Your task to perform on an android device: What's on my calendar tomorrow? Image 0: 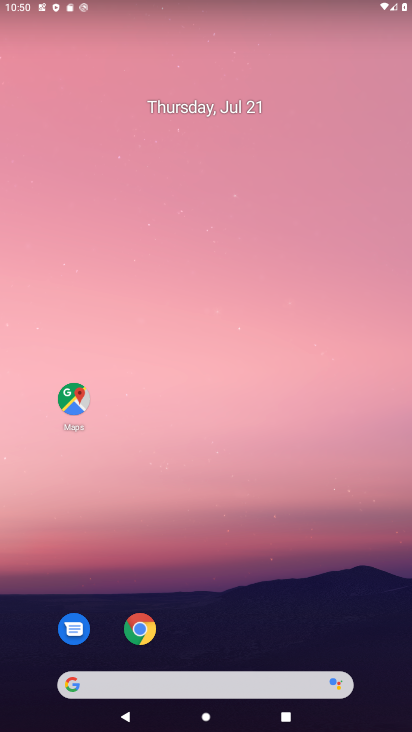
Step 0: drag from (264, 573) to (282, 326)
Your task to perform on an android device: What's on my calendar tomorrow? Image 1: 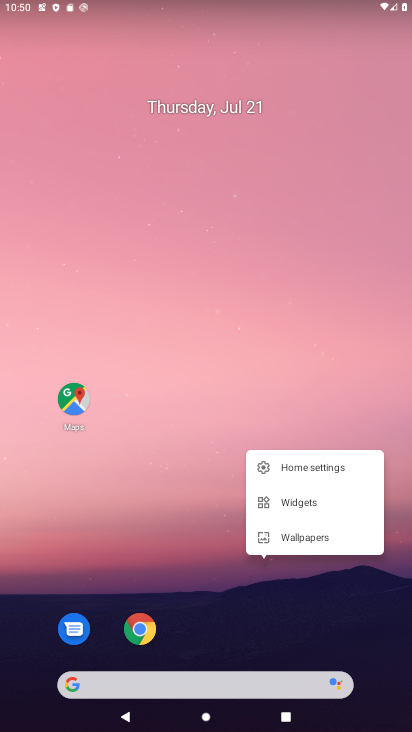
Step 1: click (200, 426)
Your task to perform on an android device: What's on my calendar tomorrow? Image 2: 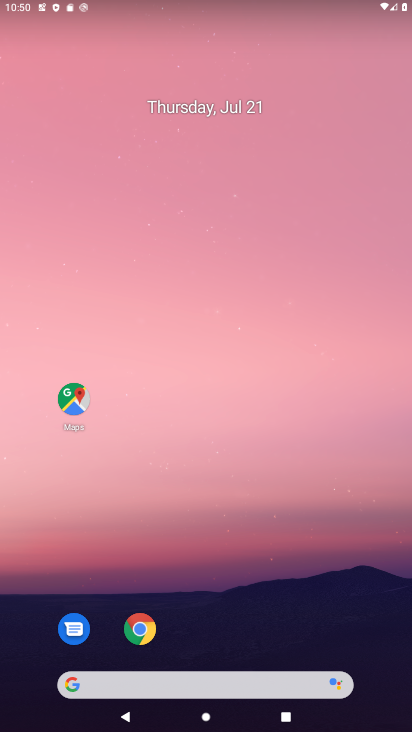
Step 2: drag from (246, 590) to (298, 306)
Your task to perform on an android device: What's on my calendar tomorrow? Image 3: 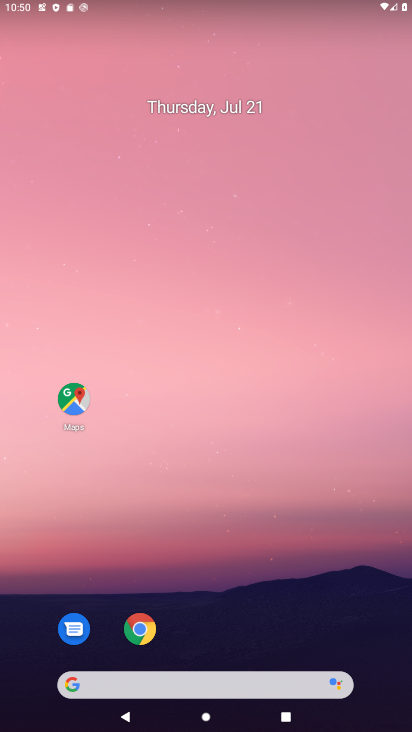
Step 3: drag from (272, 474) to (303, 277)
Your task to perform on an android device: What's on my calendar tomorrow? Image 4: 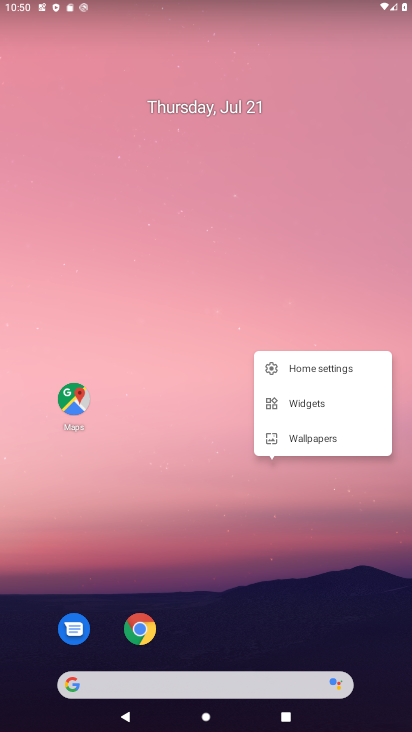
Step 4: click (292, 567)
Your task to perform on an android device: What's on my calendar tomorrow? Image 5: 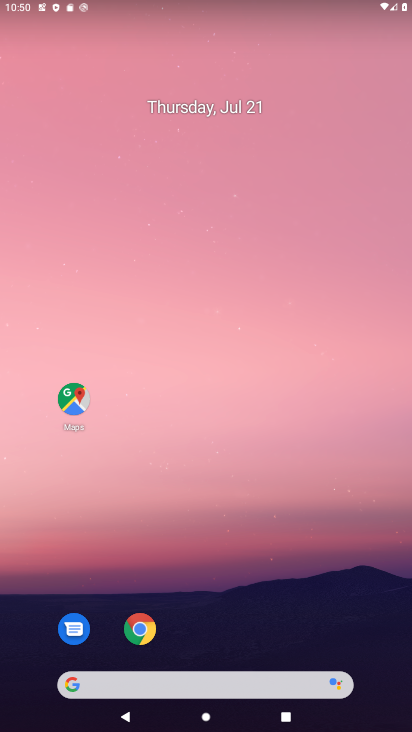
Step 5: drag from (292, 567) to (289, 282)
Your task to perform on an android device: What's on my calendar tomorrow? Image 6: 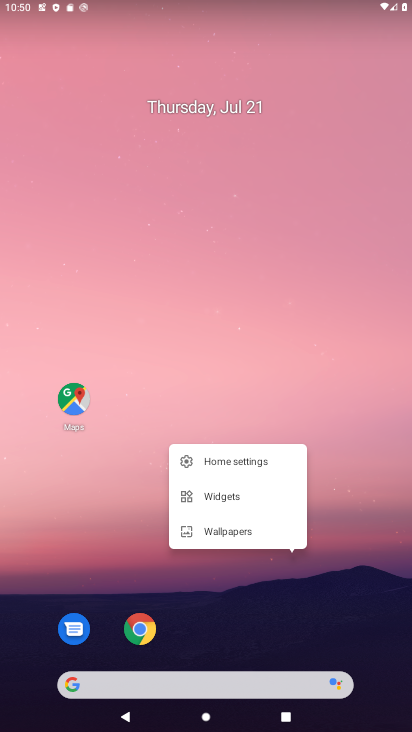
Step 6: click (289, 368)
Your task to perform on an android device: What's on my calendar tomorrow? Image 7: 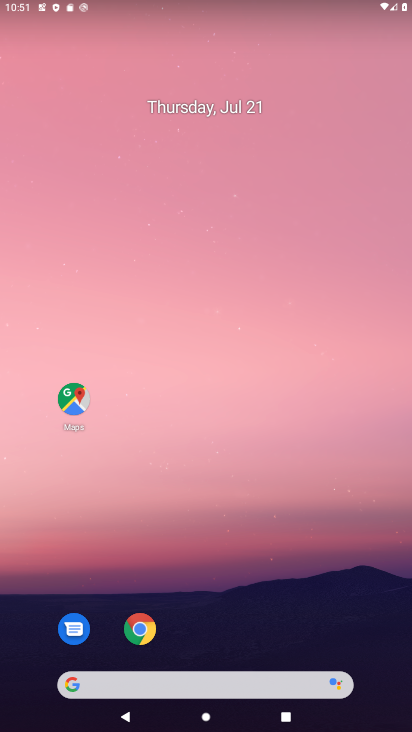
Step 7: drag from (304, 602) to (309, 252)
Your task to perform on an android device: What's on my calendar tomorrow? Image 8: 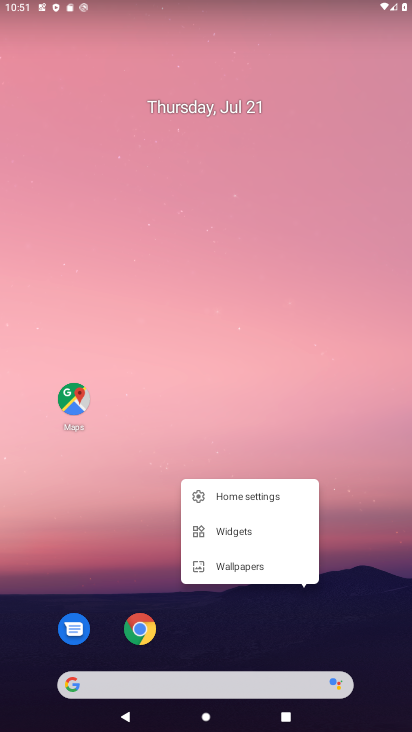
Step 8: click (261, 332)
Your task to perform on an android device: What's on my calendar tomorrow? Image 9: 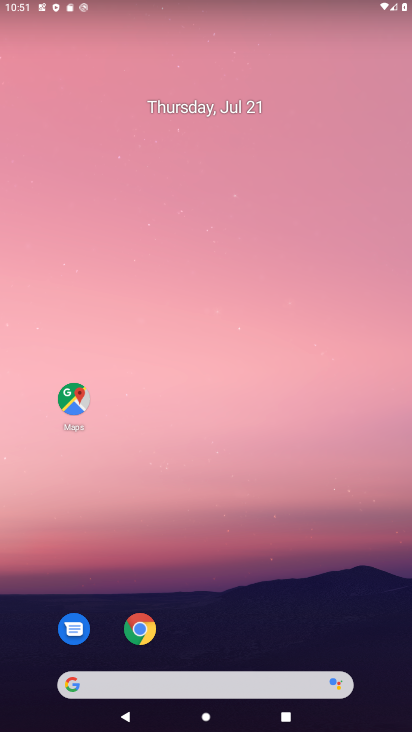
Step 9: drag from (230, 536) to (242, 218)
Your task to perform on an android device: What's on my calendar tomorrow? Image 10: 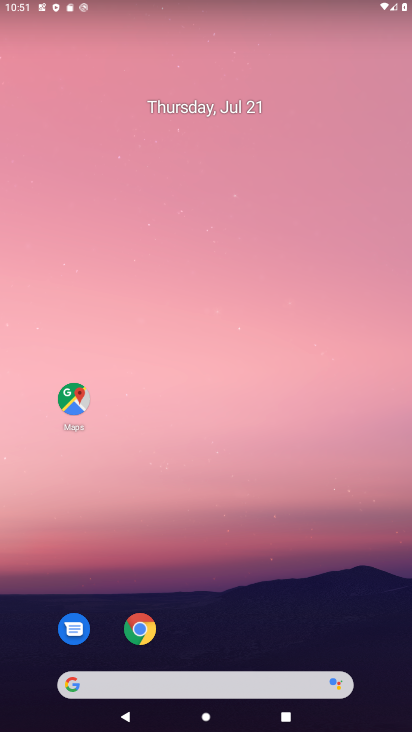
Step 10: drag from (253, 608) to (270, 230)
Your task to perform on an android device: What's on my calendar tomorrow? Image 11: 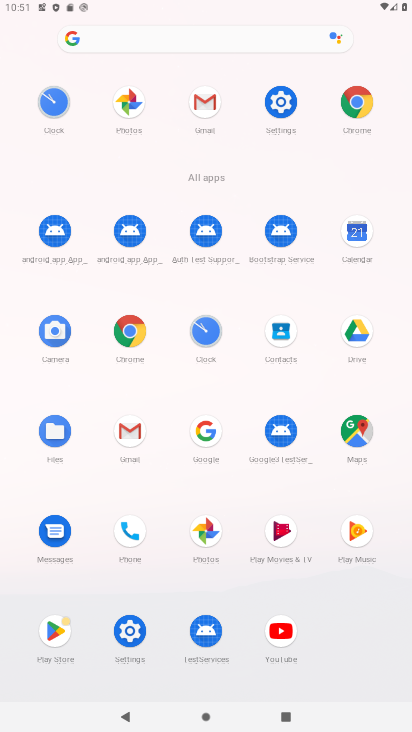
Step 11: click (359, 237)
Your task to perform on an android device: What's on my calendar tomorrow? Image 12: 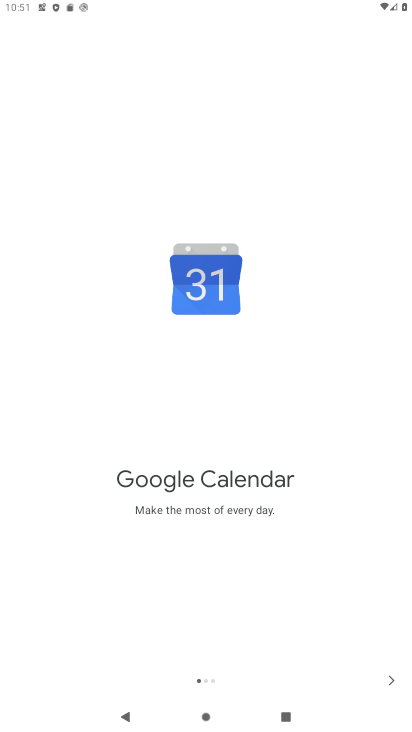
Step 12: click (392, 679)
Your task to perform on an android device: What's on my calendar tomorrow? Image 13: 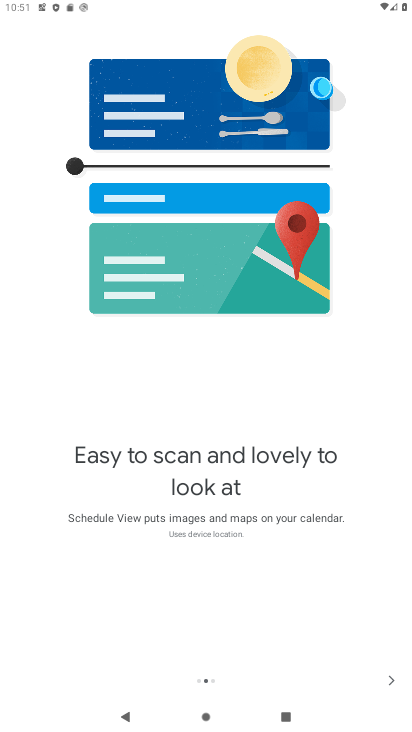
Step 13: click (392, 679)
Your task to perform on an android device: What's on my calendar tomorrow? Image 14: 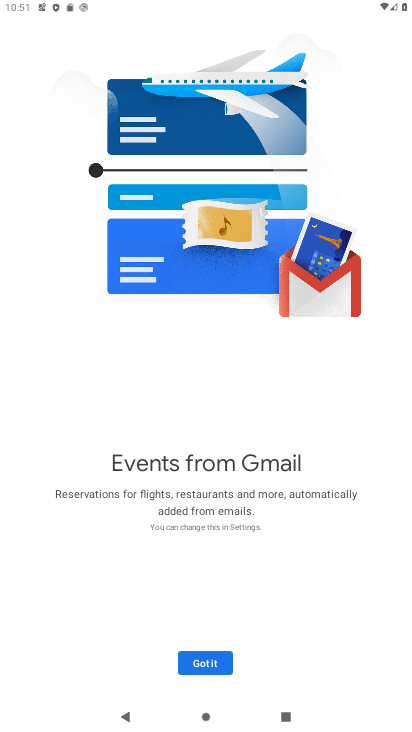
Step 14: click (214, 670)
Your task to perform on an android device: What's on my calendar tomorrow? Image 15: 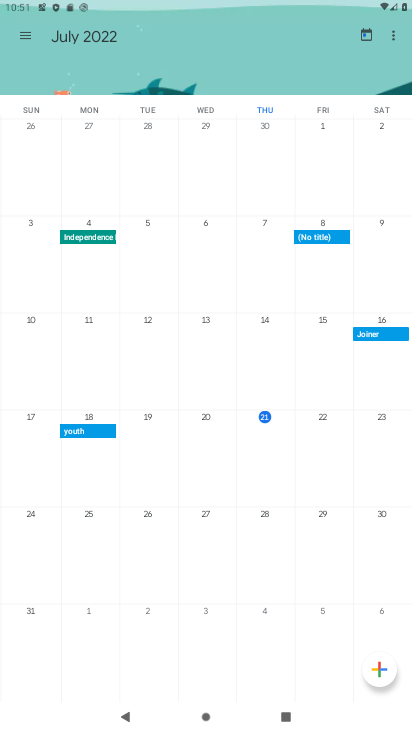
Step 15: task complete